Your task to perform on an android device: turn on wifi Image 0: 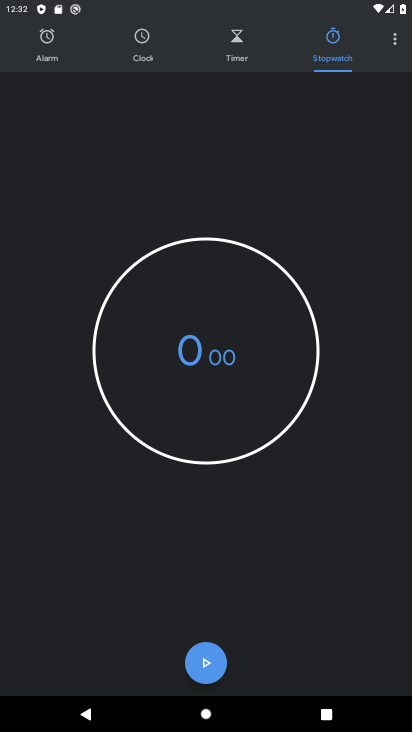
Step 0: drag from (292, 638) to (258, 346)
Your task to perform on an android device: turn on wifi Image 1: 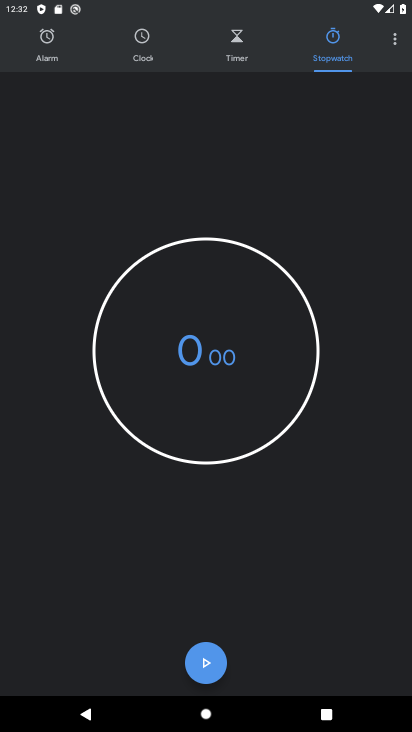
Step 1: task complete